Your task to perform on an android device: toggle priority inbox in the gmail app Image 0: 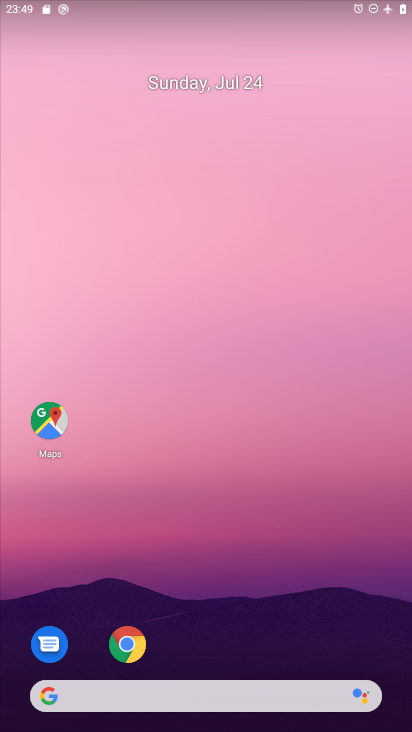
Step 0: drag from (380, 640) to (299, 141)
Your task to perform on an android device: toggle priority inbox in the gmail app Image 1: 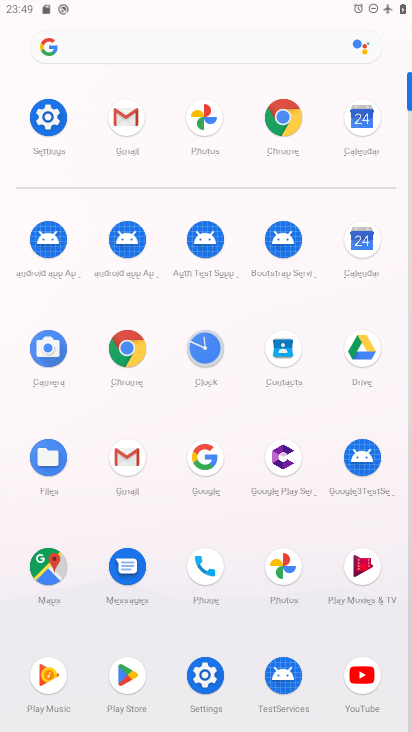
Step 1: click (126, 456)
Your task to perform on an android device: toggle priority inbox in the gmail app Image 2: 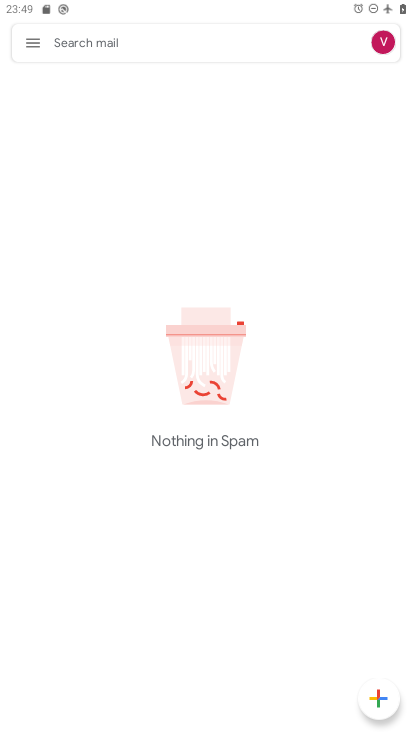
Step 2: click (30, 49)
Your task to perform on an android device: toggle priority inbox in the gmail app Image 3: 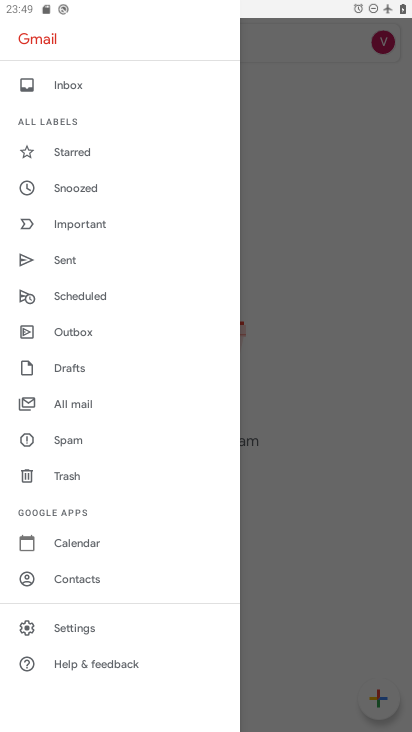
Step 3: click (85, 623)
Your task to perform on an android device: toggle priority inbox in the gmail app Image 4: 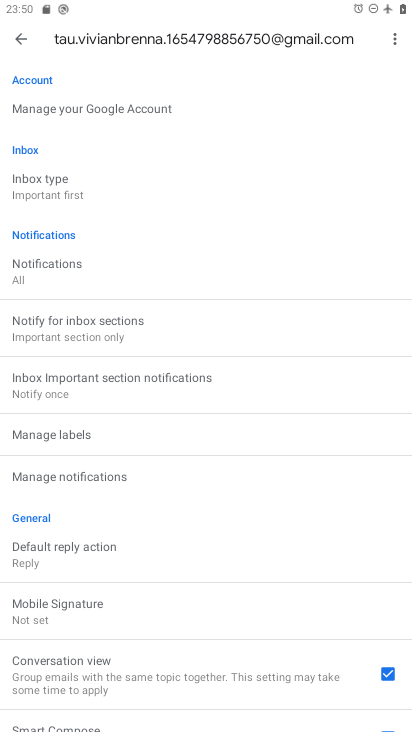
Step 4: click (38, 175)
Your task to perform on an android device: toggle priority inbox in the gmail app Image 5: 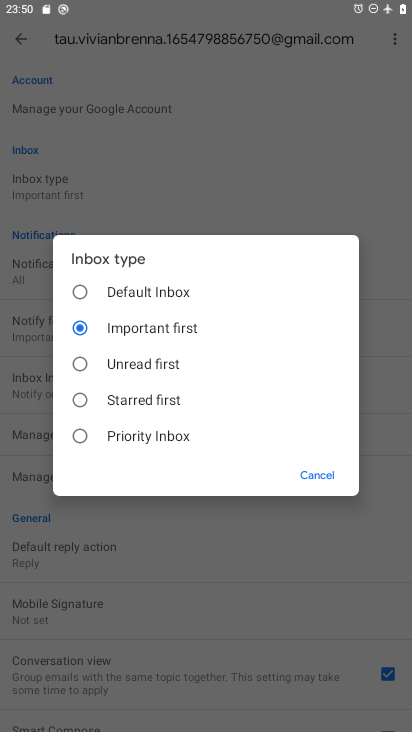
Step 5: click (83, 434)
Your task to perform on an android device: toggle priority inbox in the gmail app Image 6: 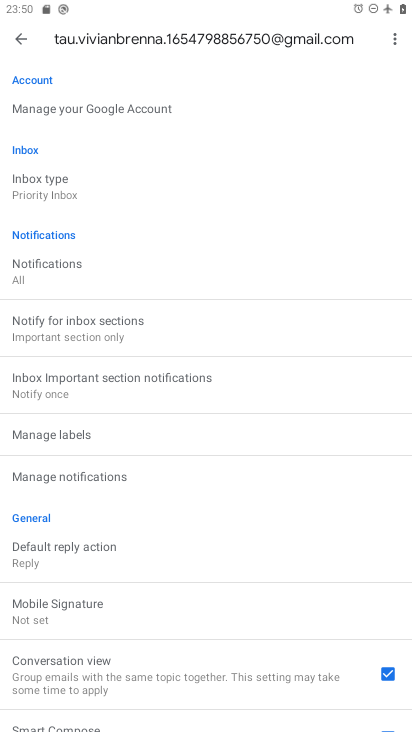
Step 6: task complete